Your task to perform on an android device: change the clock display to digital Image 0: 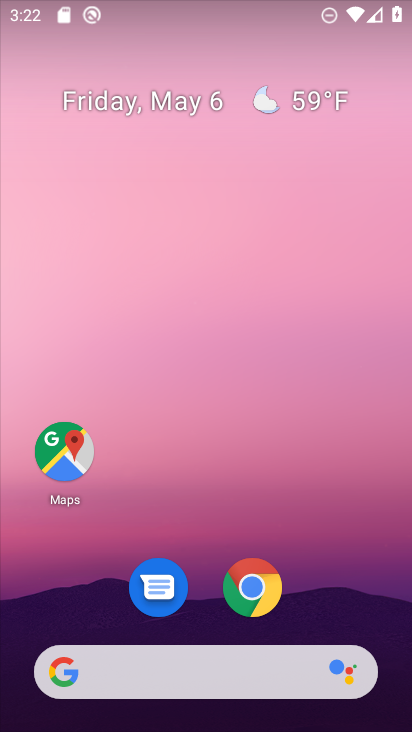
Step 0: drag from (351, 591) to (390, 120)
Your task to perform on an android device: change the clock display to digital Image 1: 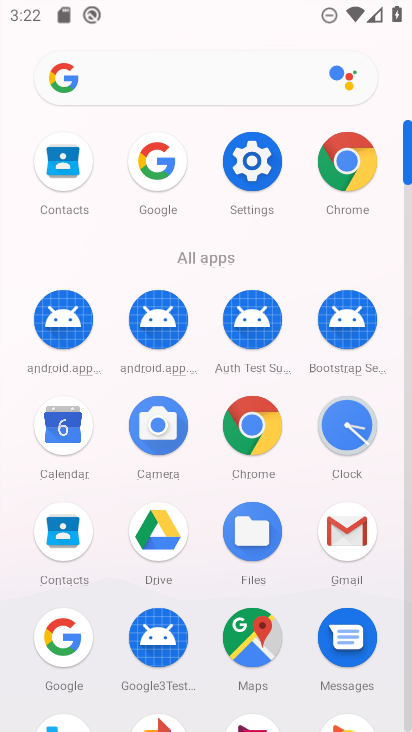
Step 1: click (342, 435)
Your task to perform on an android device: change the clock display to digital Image 2: 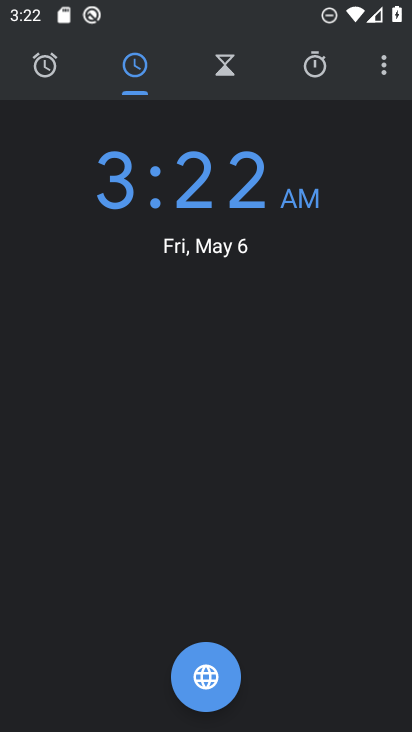
Step 2: click (378, 84)
Your task to perform on an android device: change the clock display to digital Image 3: 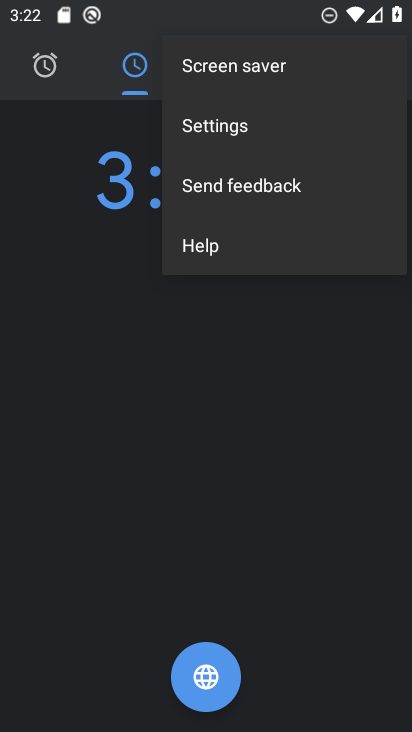
Step 3: click (216, 134)
Your task to perform on an android device: change the clock display to digital Image 4: 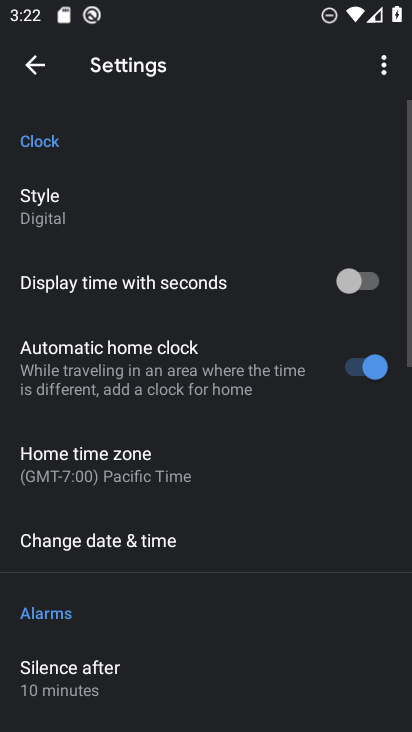
Step 4: click (39, 192)
Your task to perform on an android device: change the clock display to digital Image 5: 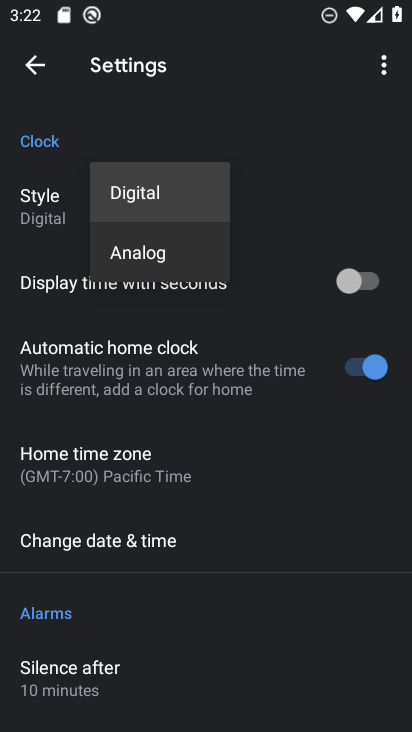
Step 5: click (133, 196)
Your task to perform on an android device: change the clock display to digital Image 6: 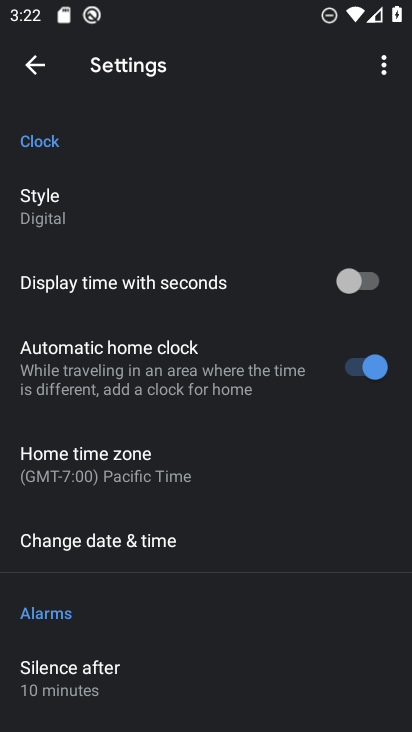
Step 6: task complete